Your task to perform on an android device: Go to ESPN.com Image 0: 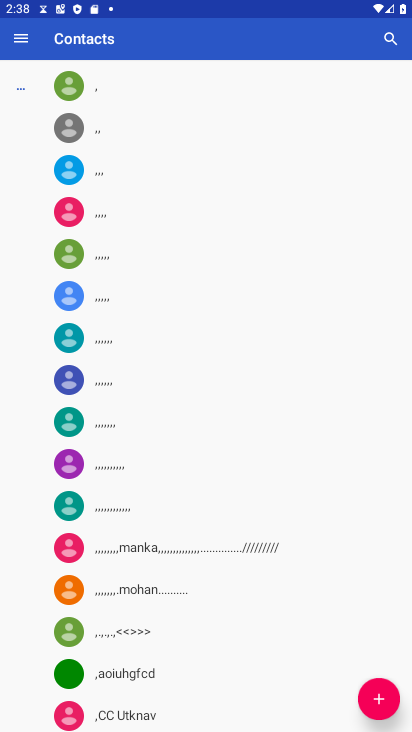
Step 0: press home button
Your task to perform on an android device: Go to ESPN.com Image 1: 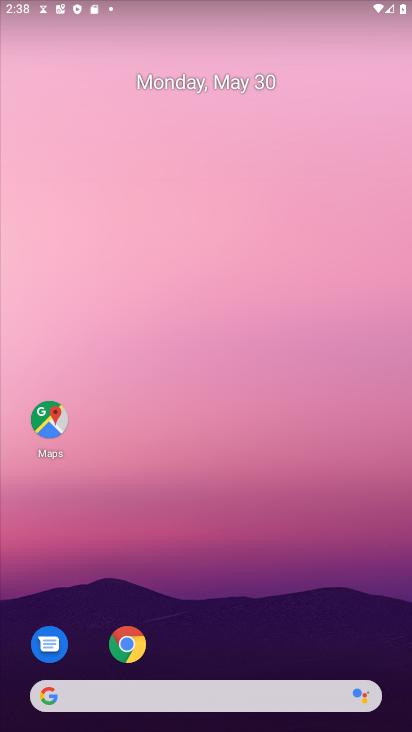
Step 1: click (143, 694)
Your task to perform on an android device: Go to ESPN.com Image 2: 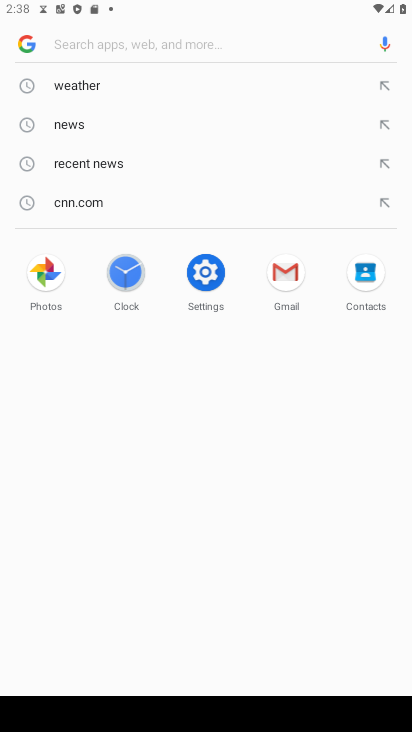
Step 2: type " ESPN.com"
Your task to perform on an android device: Go to ESPN.com Image 3: 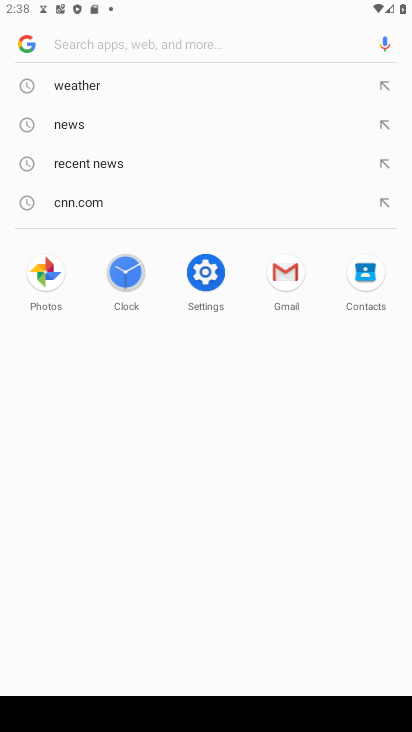
Step 3: click (122, 42)
Your task to perform on an android device: Go to ESPN.com Image 4: 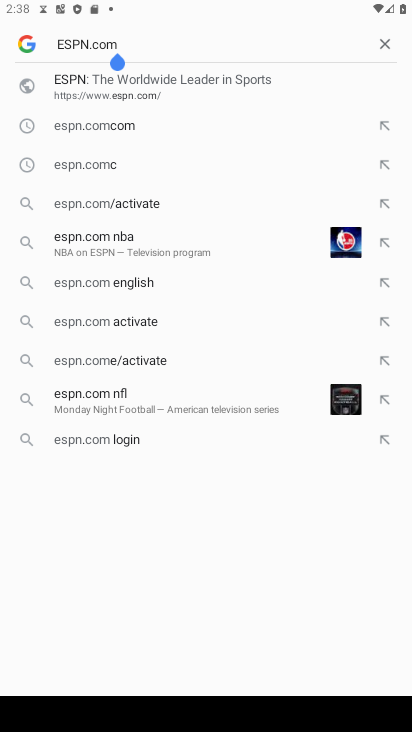
Step 4: click (180, 79)
Your task to perform on an android device: Go to ESPN.com Image 5: 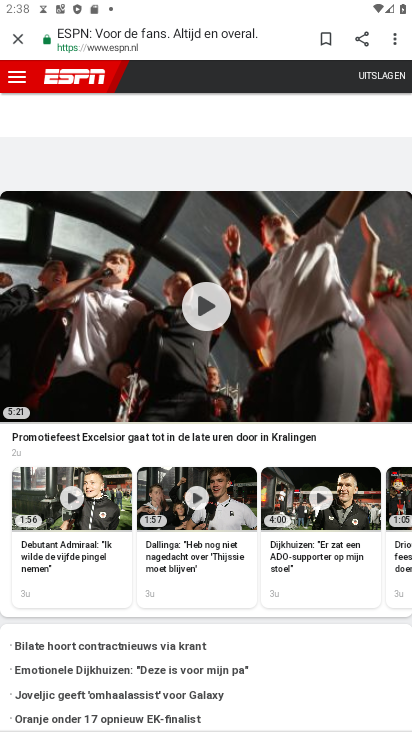
Step 5: task complete